Your task to perform on an android device: allow notifications from all sites in the chrome app Image 0: 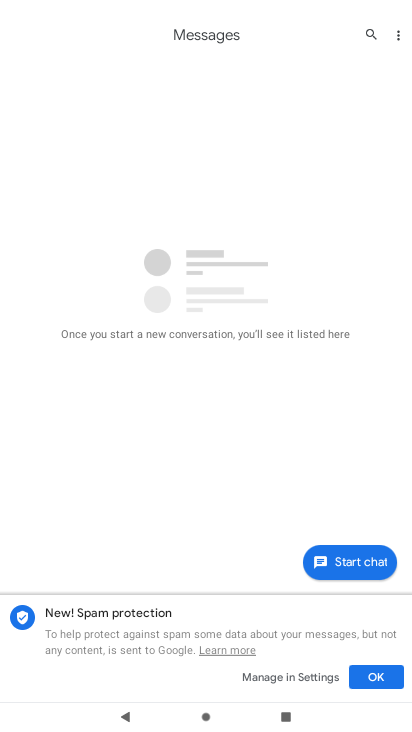
Step 0: press home button
Your task to perform on an android device: allow notifications from all sites in the chrome app Image 1: 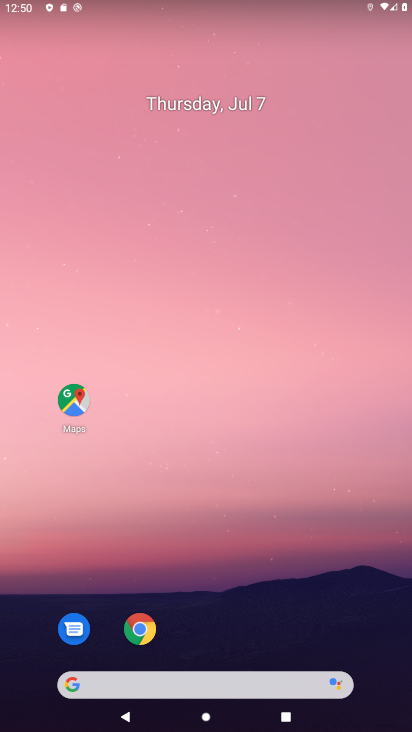
Step 1: click (140, 623)
Your task to perform on an android device: allow notifications from all sites in the chrome app Image 2: 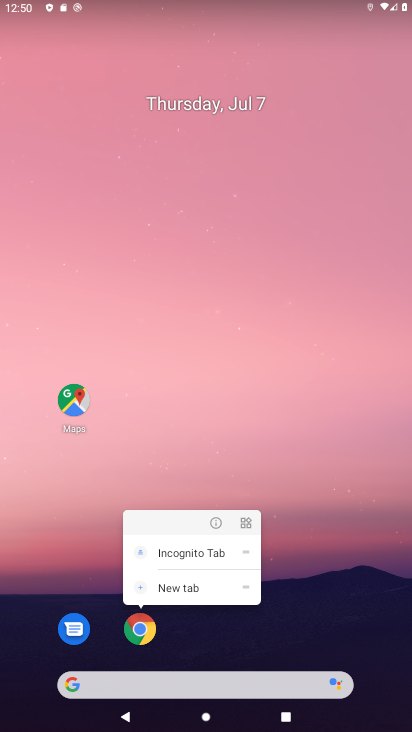
Step 2: click (142, 629)
Your task to perform on an android device: allow notifications from all sites in the chrome app Image 3: 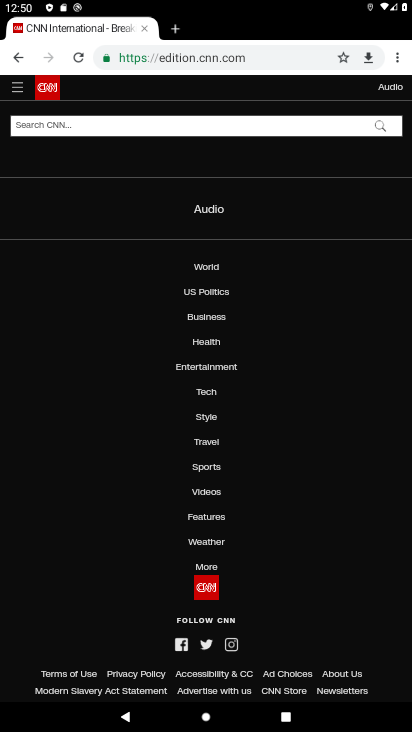
Step 3: click (393, 54)
Your task to perform on an android device: allow notifications from all sites in the chrome app Image 4: 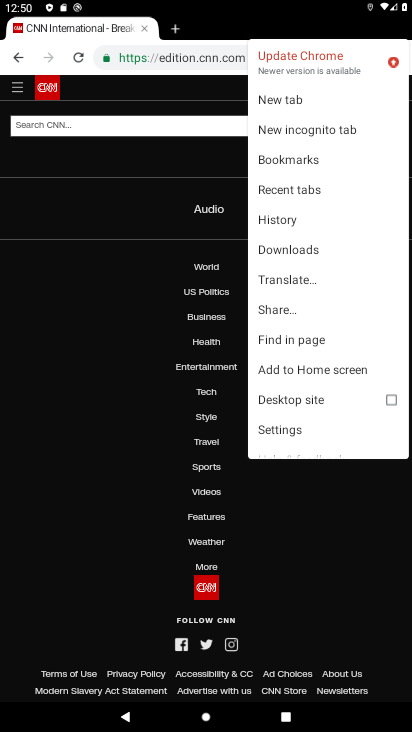
Step 4: click (308, 429)
Your task to perform on an android device: allow notifications from all sites in the chrome app Image 5: 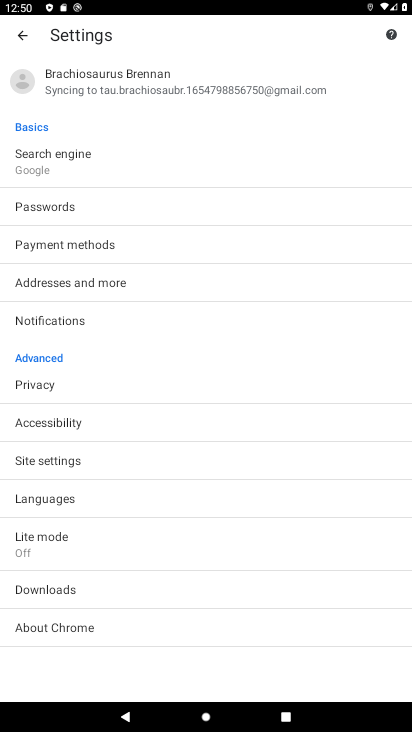
Step 5: click (52, 464)
Your task to perform on an android device: allow notifications from all sites in the chrome app Image 6: 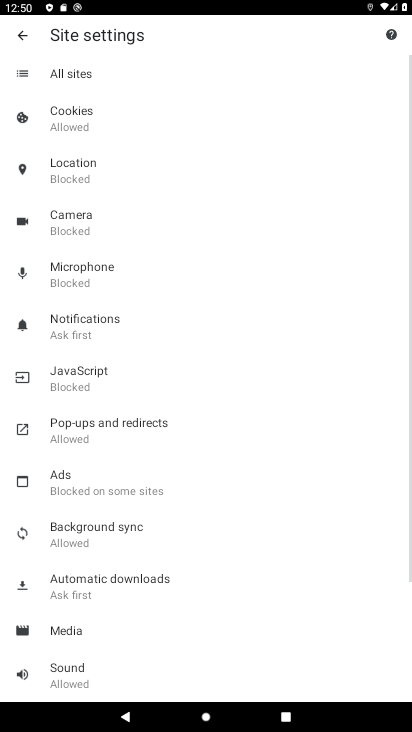
Step 6: click (86, 321)
Your task to perform on an android device: allow notifications from all sites in the chrome app Image 7: 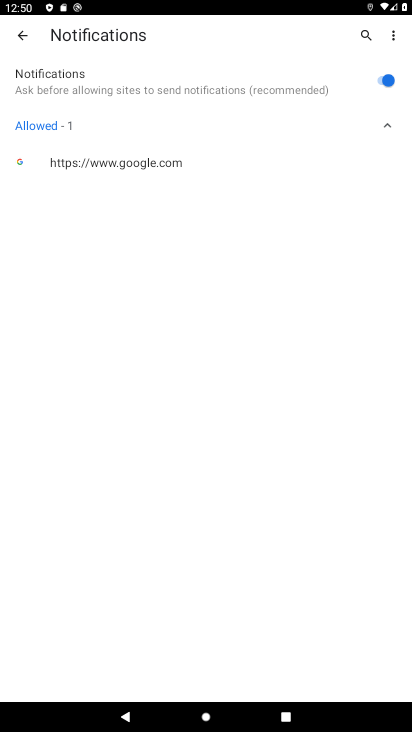
Step 7: task complete